Your task to perform on an android device: stop showing notifications on the lock screen Image 0: 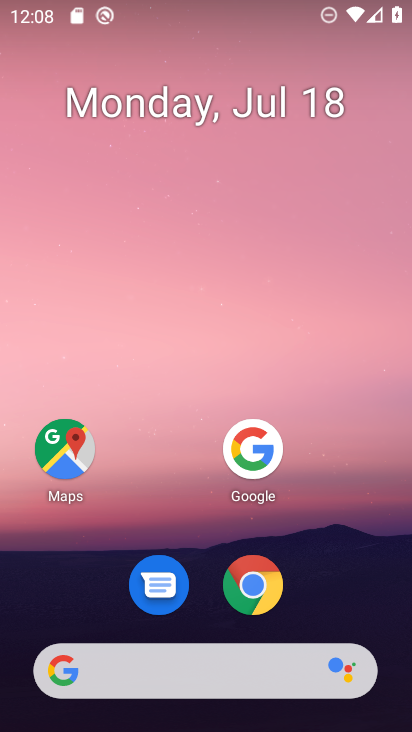
Step 0: press home button
Your task to perform on an android device: stop showing notifications on the lock screen Image 1: 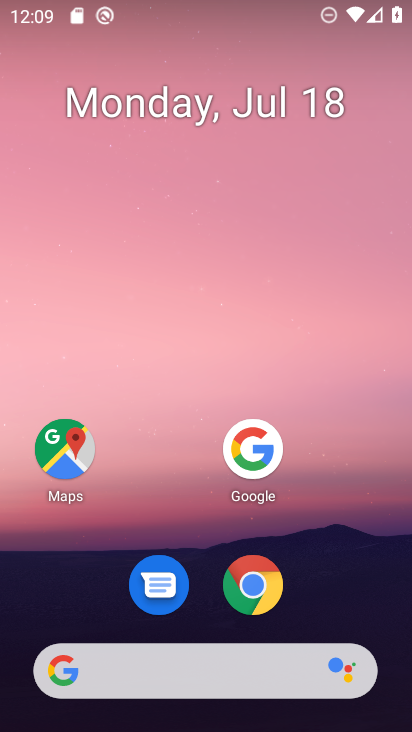
Step 1: drag from (225, 639) to (316, 59)
Your task to perform on an android device: stop showing notifications on the lock screen Image 2: 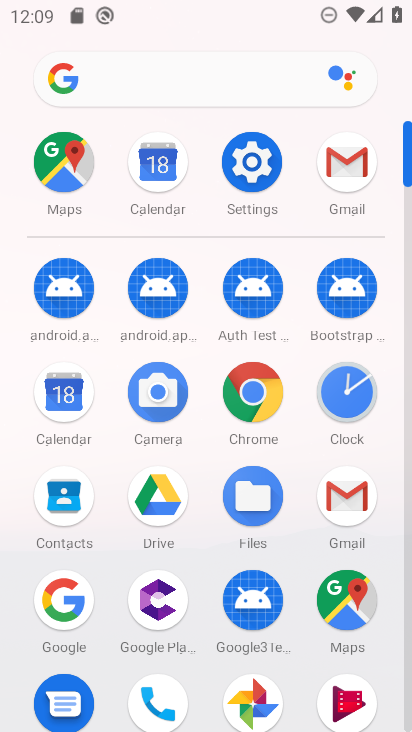
Step 2: click (254, 164)
Your task to perform on an android device: stop showing notifications on the lock screen Image 3: 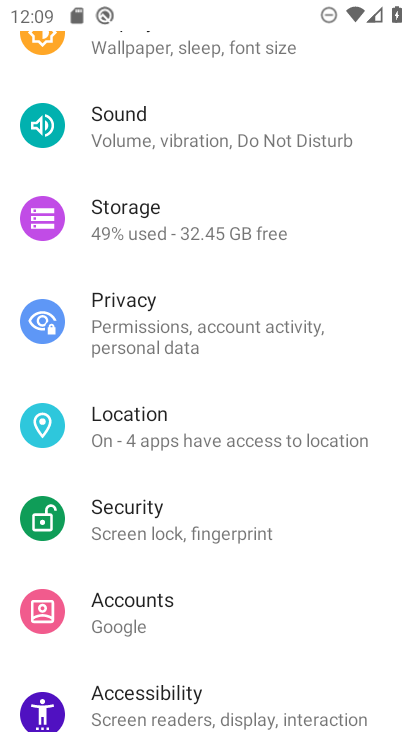
Step 3: drag from (249, 91) to (184, 529)
Your task to perform on an android device: stop showing notifications on the lock screen Image 4: 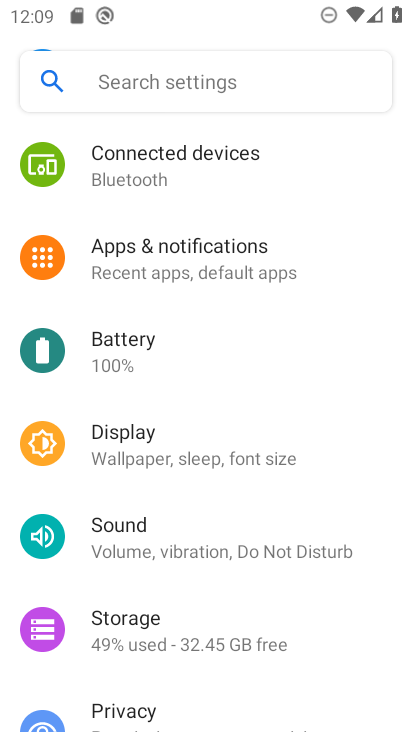
Step 4: click (213, 262)
Your task to perform on an android device: stop showing notifications on the lock screen Image 5: 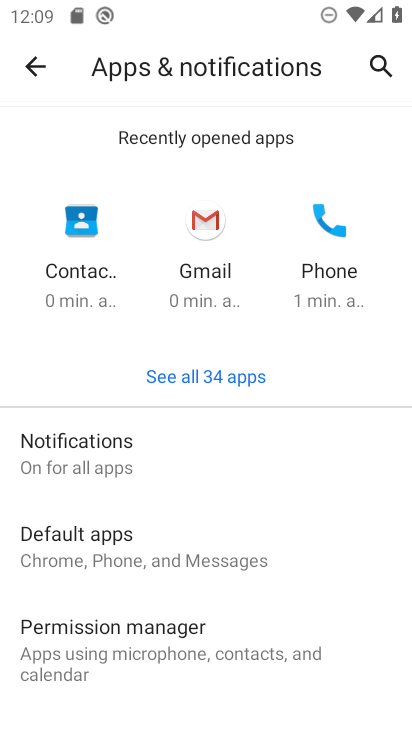
Step 5: click (88, 456)
Your task to perform on an android device: stop showing notifications on the lock screen Image 6: 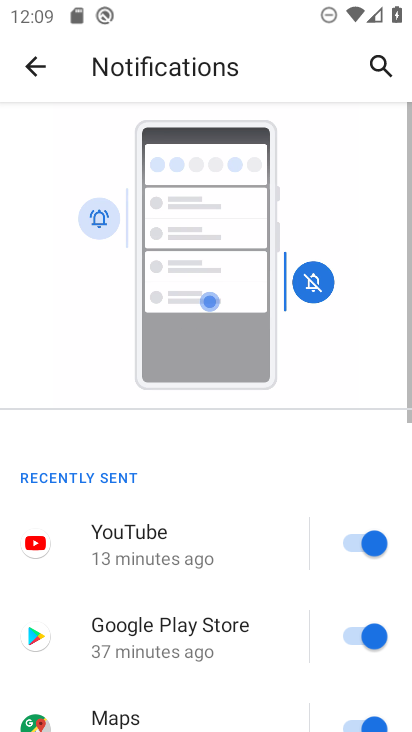
Step 6: drag from (177, 660) to (345, 117)
Your task to perform on an android device: stop showing notifications on the lock screen Image 7: 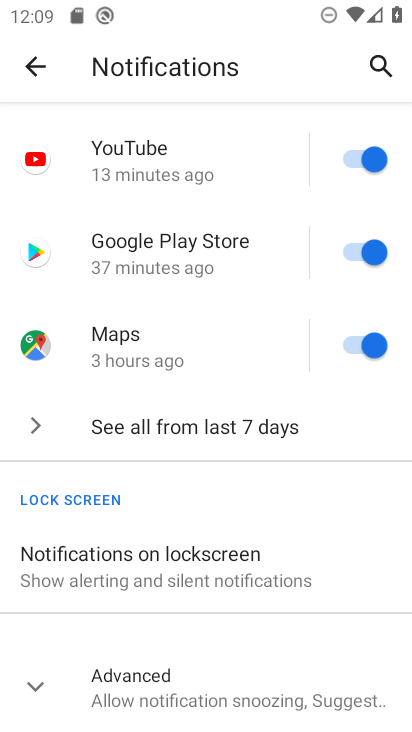
Step 7: click (181, 569)
Your task to perform on an android device: stop showing notifications on the lock screen Image 8: 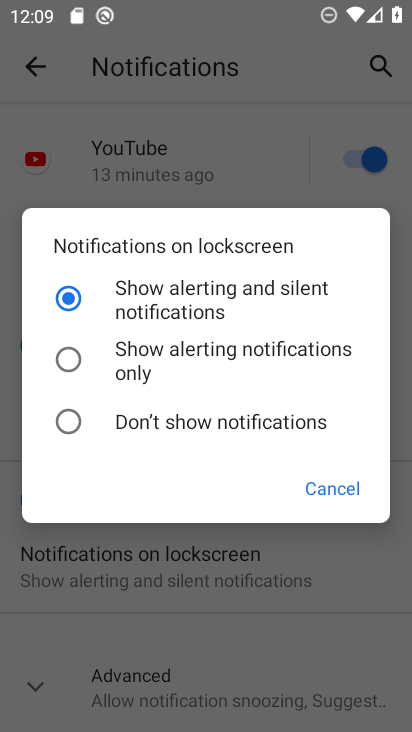
Step 8: click (63, 417)
Your task to perform on an android device: stop showing notifications on the lock screen Image 9: 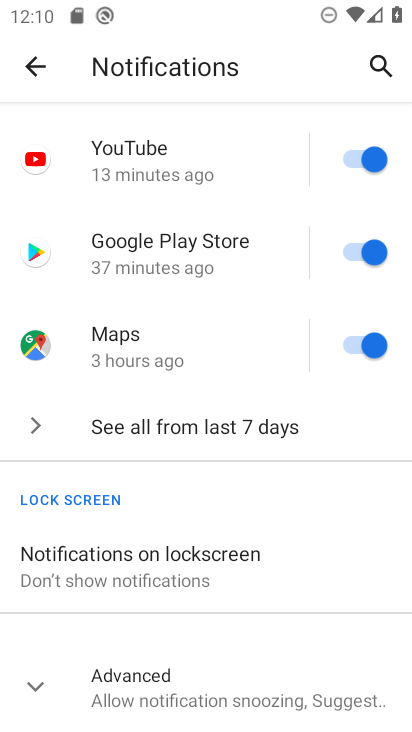
Step 9: task complete